Your task to perform on an android device: turn on bluetooth scan Image 0: 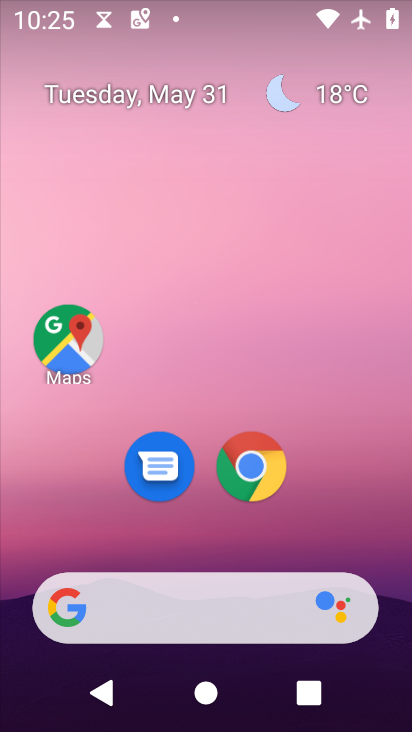
Step 0: drag from (368, 547) to (258, 0)
Your task to perform on an android device: turn on bluetooth scan Image 1: 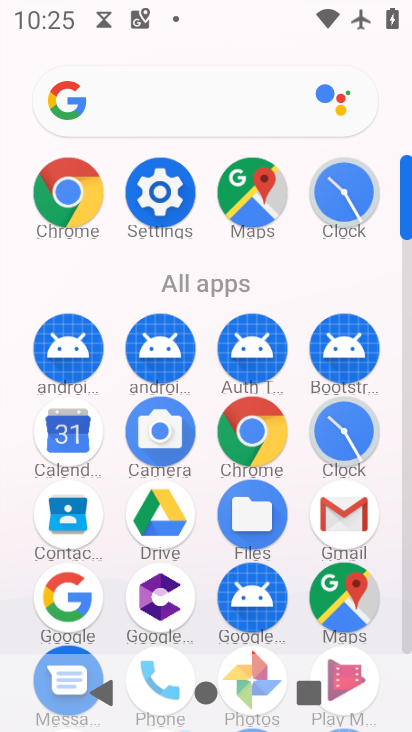
Step 1: drag from (16, 563) to (20, 213)
Your task to perform on an android device: turn on bluetooth scan Image 2: 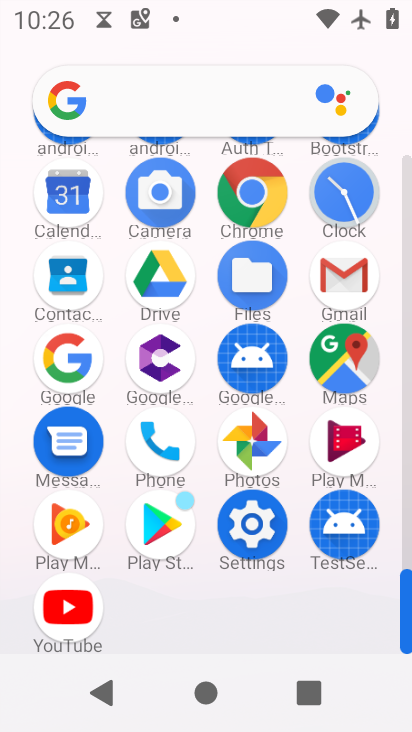
Step 2: click (252, 519)
Your task to perform on an android device: turn on bluetooth scan Image 3: 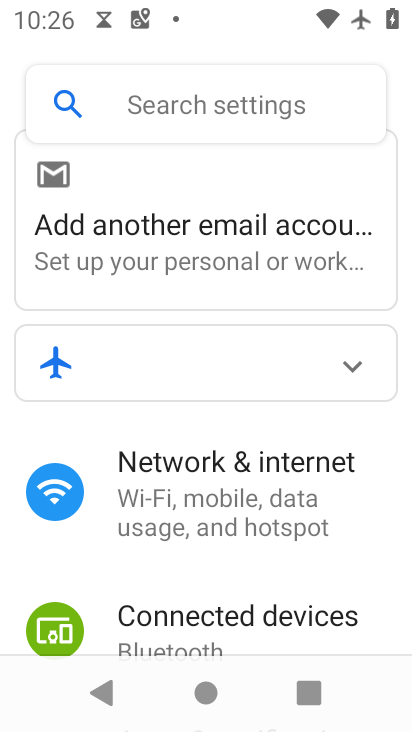
Step 3: drag from (322, 591) to (308, 173)
Your task to perform on an android device: turn on bluetooth scan Image 4: 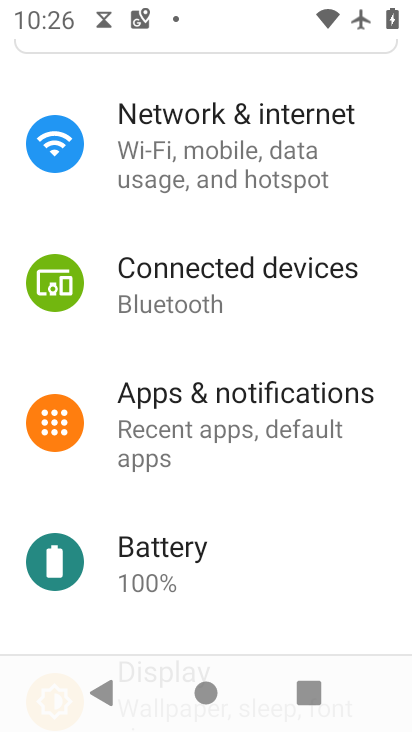
Step 4: drag from (289, 531) to (303, 154)
Your task to perform on an android device: turn on bluetooth scan Image 5: 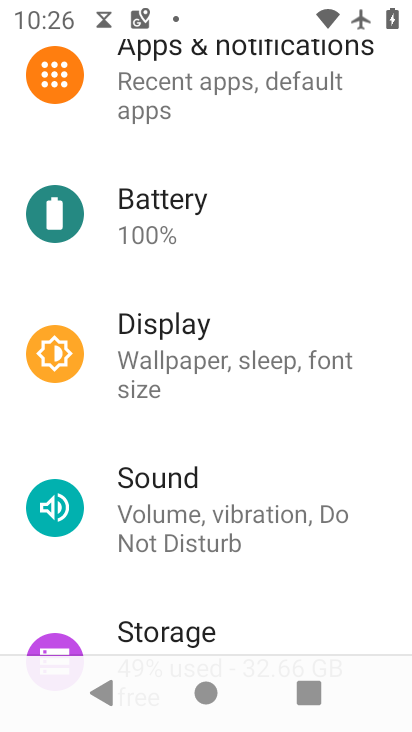
Step 5: drag from (259, 565) to (268, 82)
Your task to perform on an android device: turn on bluetooth scan Image 6: 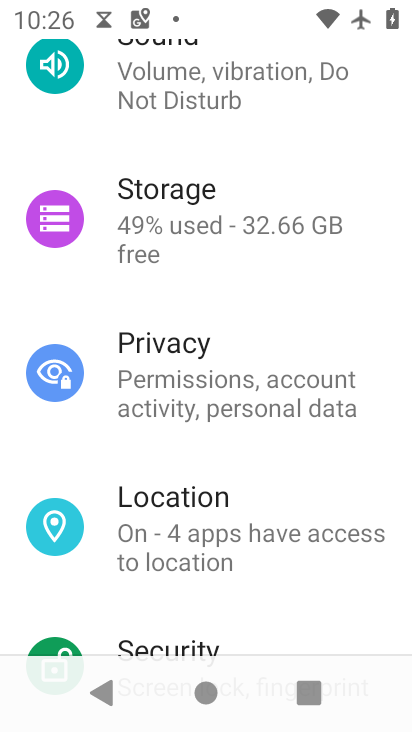
Step 6: drag from (271, 541) to (286, 171)
Your task to perform on an android device: turn on bluetooth scan Image 7: 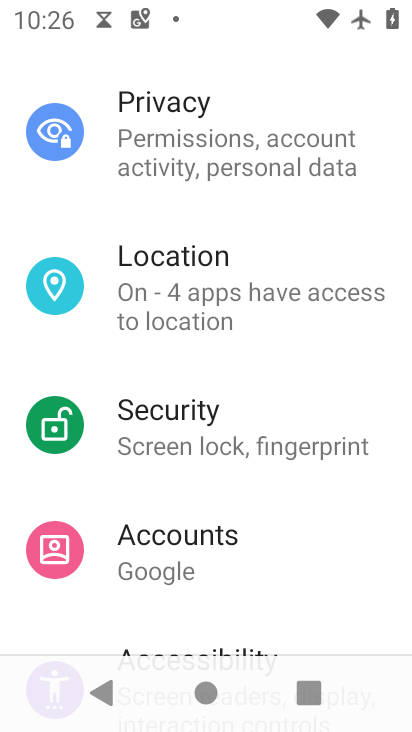
Step 7: click (211, 273)
Your task to perform on an android device: turn on bluetooth scan Image 8: 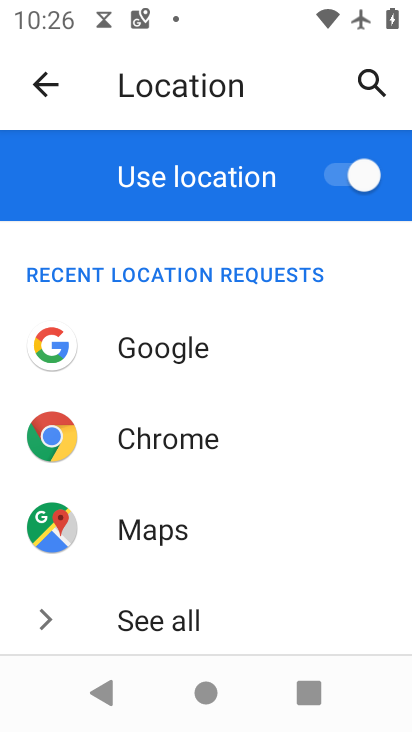
Step 8: drag from (276, 526) to (238, 137)
Your task to perform on an android device: turn on bluetooth scan Image 9: 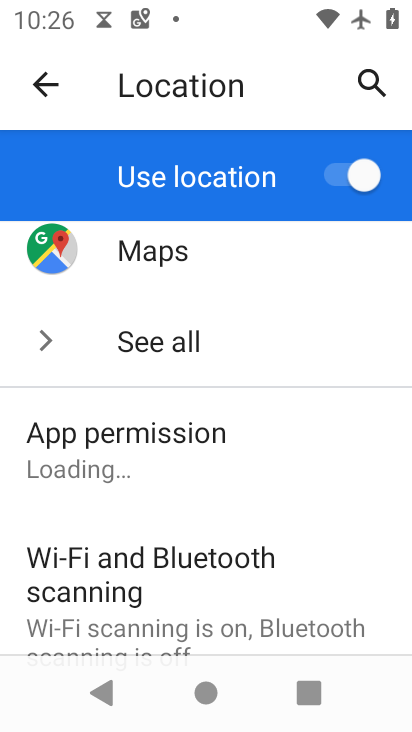
Step 9: click (222, 572)
Your task to perform on an android device: turn on bluetooth scan Image 10: 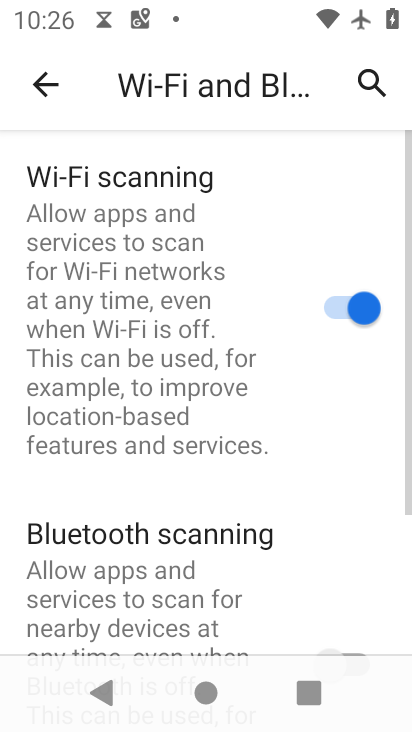
Step 10: drag from (252, 594) to (237, 153)
Your task to perform on an android device: turn on bluetooth scan Image 11: 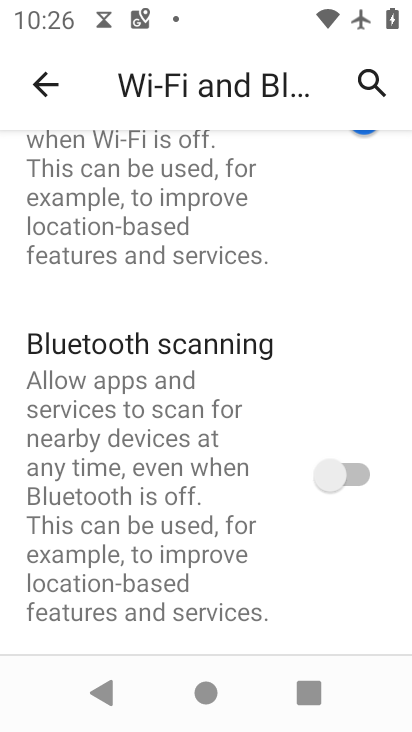
Step 11: click (332, 463)
Your task to perform on an android device: turn on bluetooth scan Image 12: 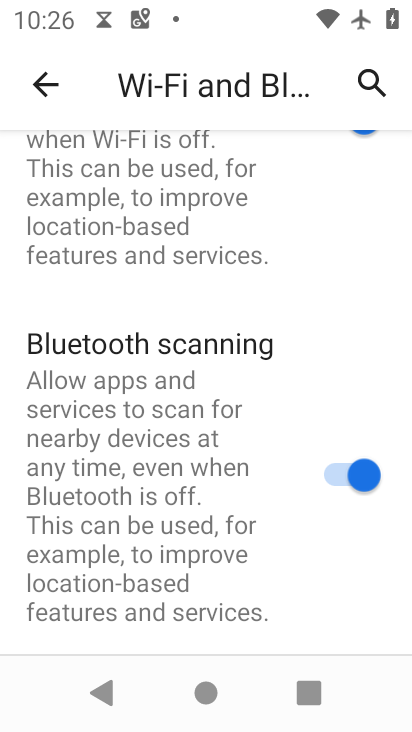
Step 12: task complete